Your task to perform on an android device: Open the calendar app, open the side menu, and click the "Day" option Image 0: 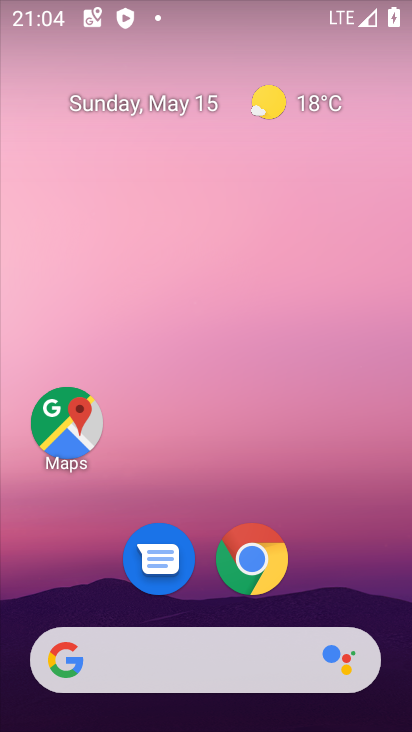
Step 0: drag from (198, 484) to (148, 1)
Your task to perform on an android device: Open the calendar app, open the side menu, and click the "Day" option Image 1: 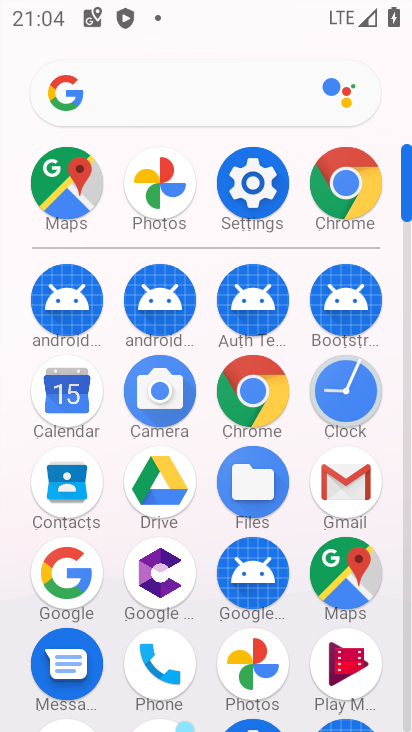
Step 1: click (61, 388)
Your task to perform on an android device: Open the calendar app, open the side menu, and click the "Day" option Image 2: 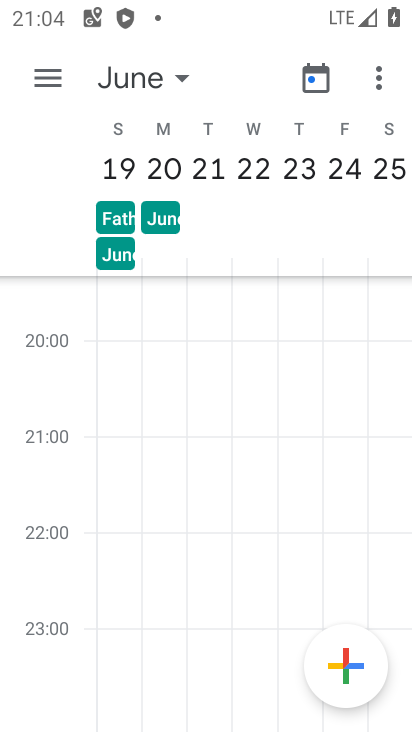
Step 2: click (45, 73)
Your task to perform on an android device: Open the calendar app, open the side menu, and click the "Day" option Image 3: 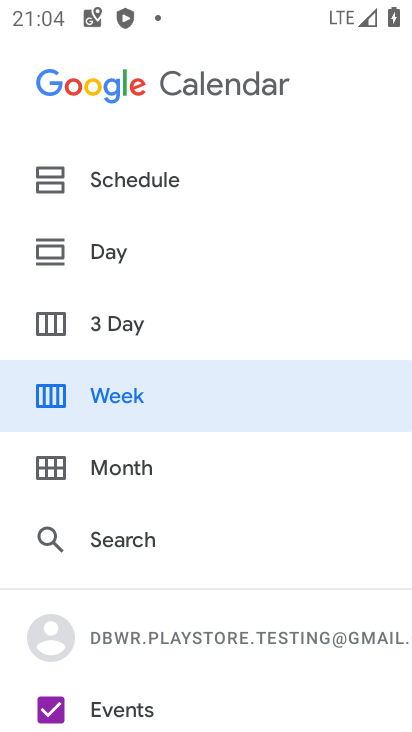
Step 3: click (102, 249)
Your task to perform on an android device: Open the calendar app, open the side menu, and click the "Day" option Image 4: 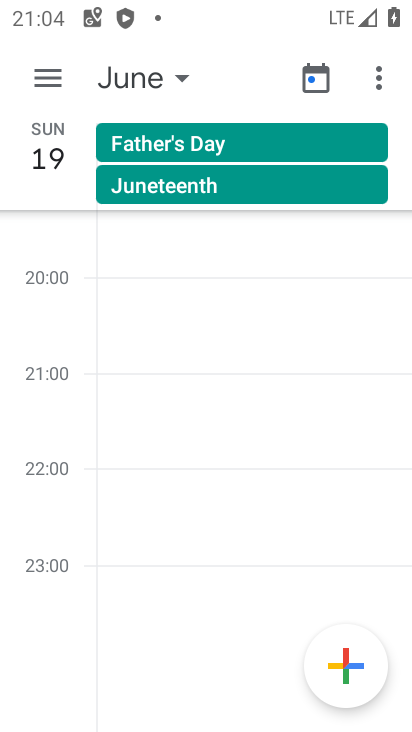
Step 4: task complete